Your task to perform on an android device: turn on improve location accuracy Image 0: 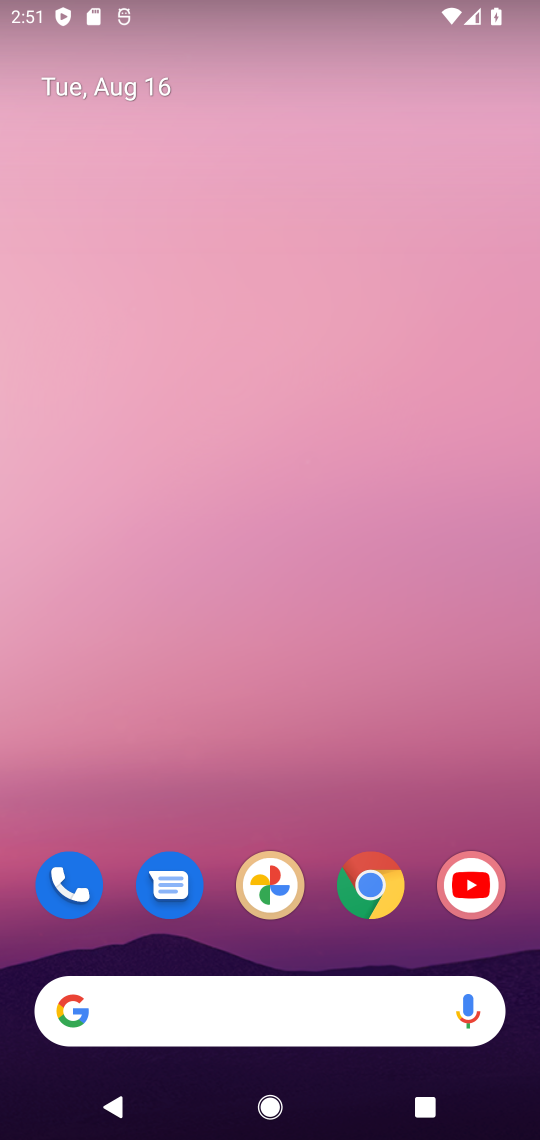
Step 0: drag from (419, 702) to (440, 333)
Your task to perform on an android device: turn on improve location accuracy Image 1: 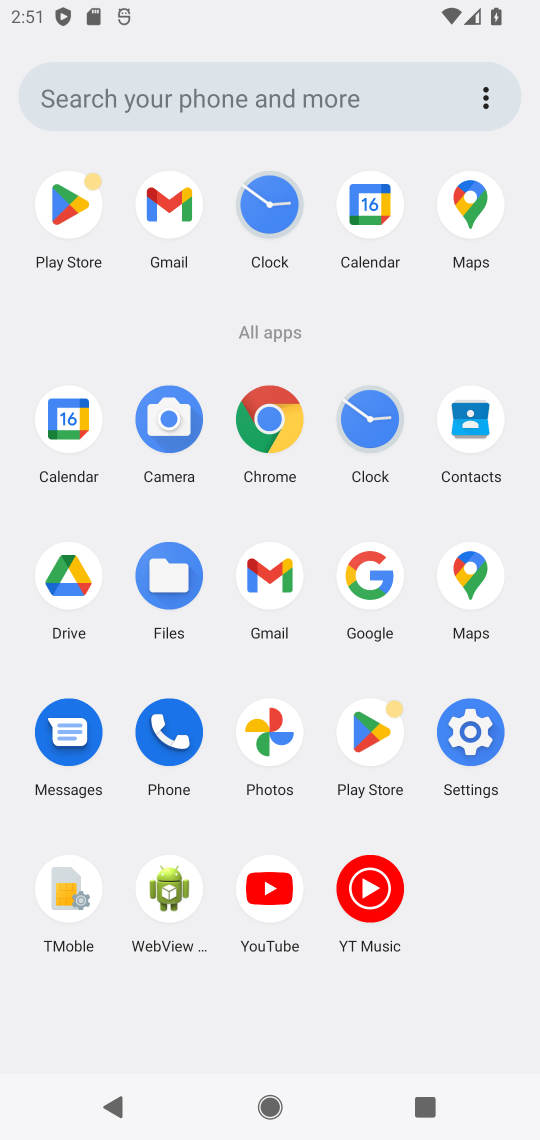
Step 1: click (463, 723)
Your task to perform on an android device: turn on improve location accuracy Image 2: 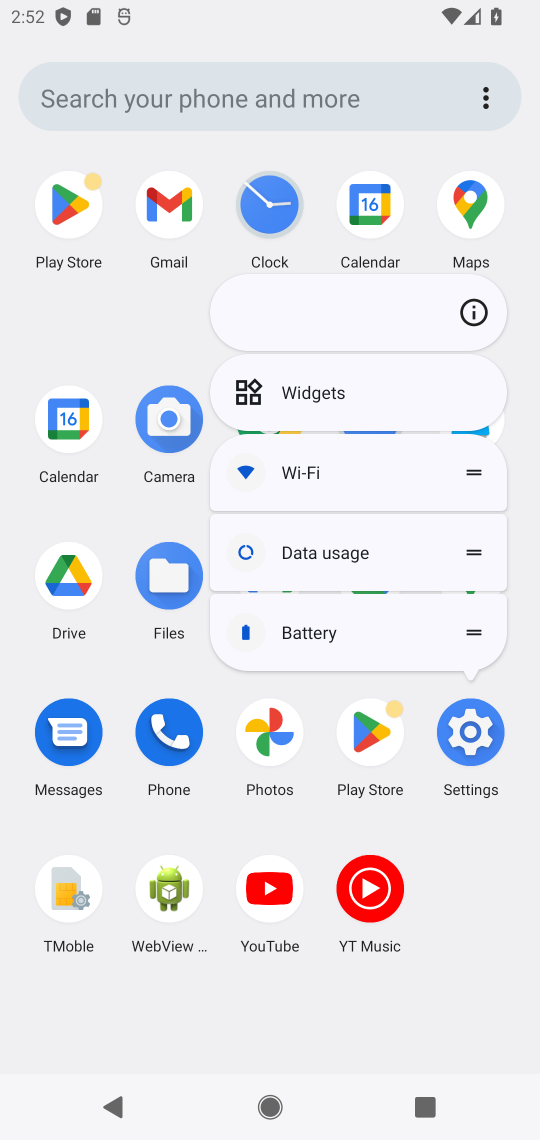
Step 2: click (463, 729)
Your task to perform on an android device: turn on improve location accuracy Image 3: 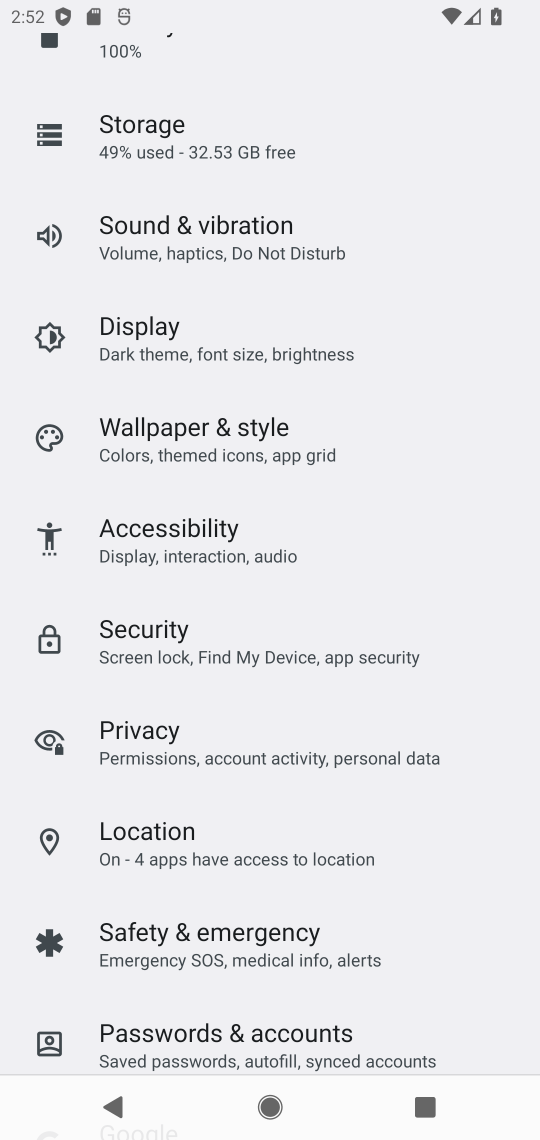
Step 3: click (157, 855)
Your task to perform on an android device: turn on improve location accuracy Image 4: 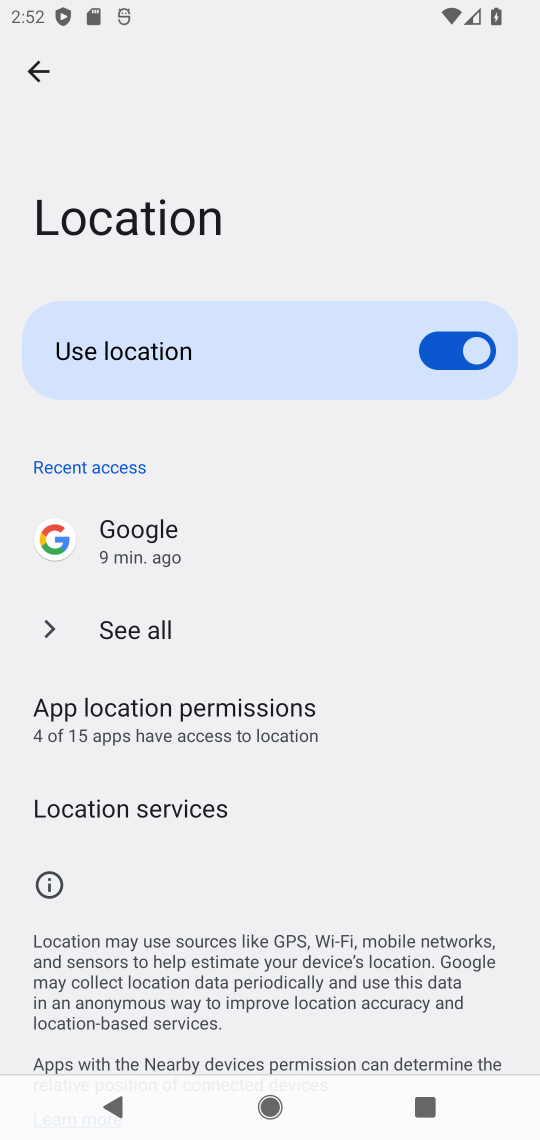
Step 4: drag from (305, 998) to (345, 569)
Your task to perform on an android device: turn on improve location accuracy Image 5: 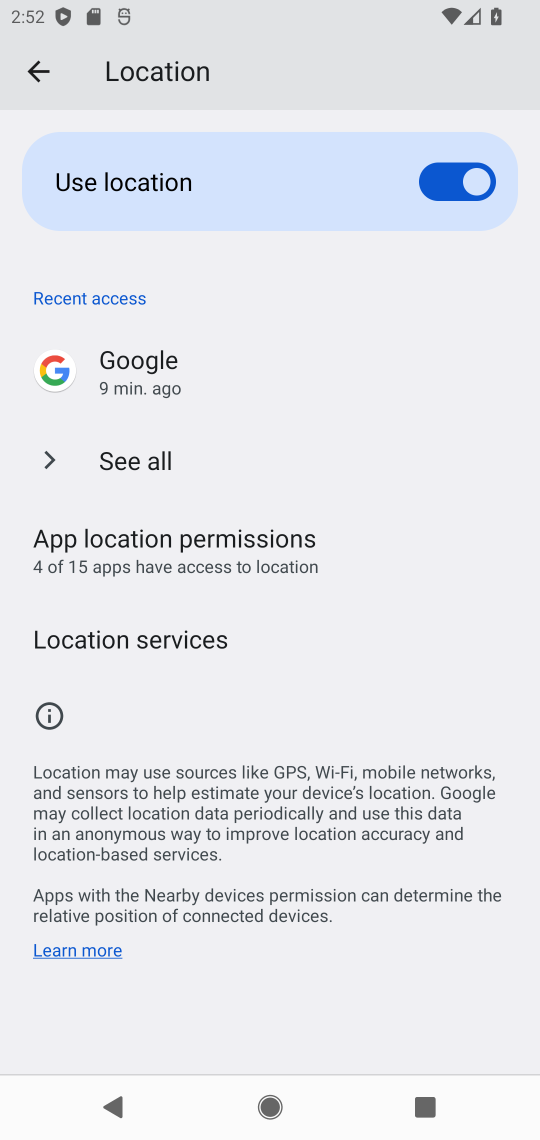
Step 5: click (146, 626)
Your task to perform on an android device: turn on improve location accuracy Image 6: 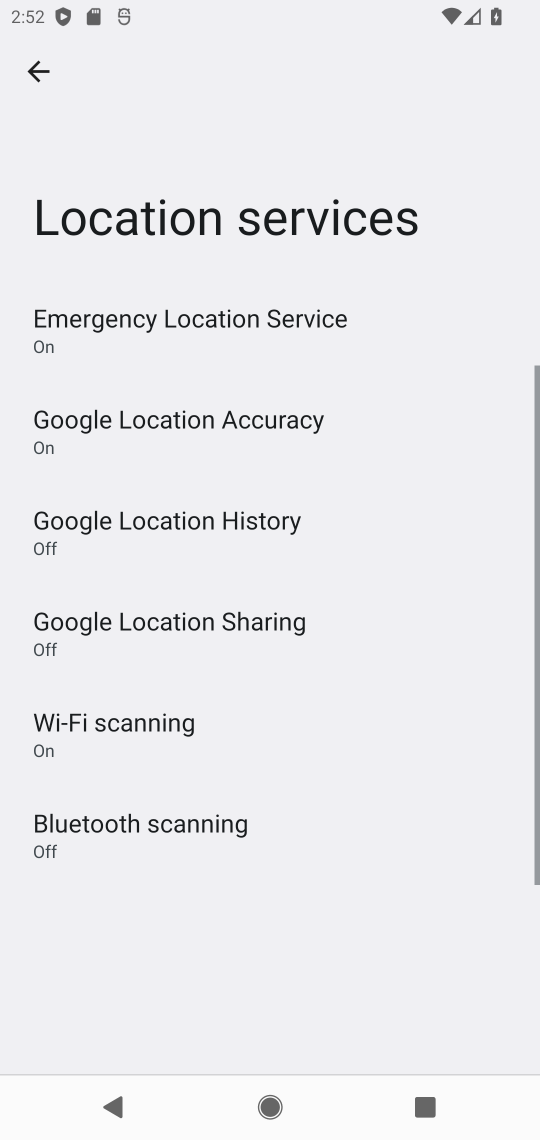
Step 6: click (261, 434)
Your task to perform on an android device: turn on improve location accuracy Image 7: 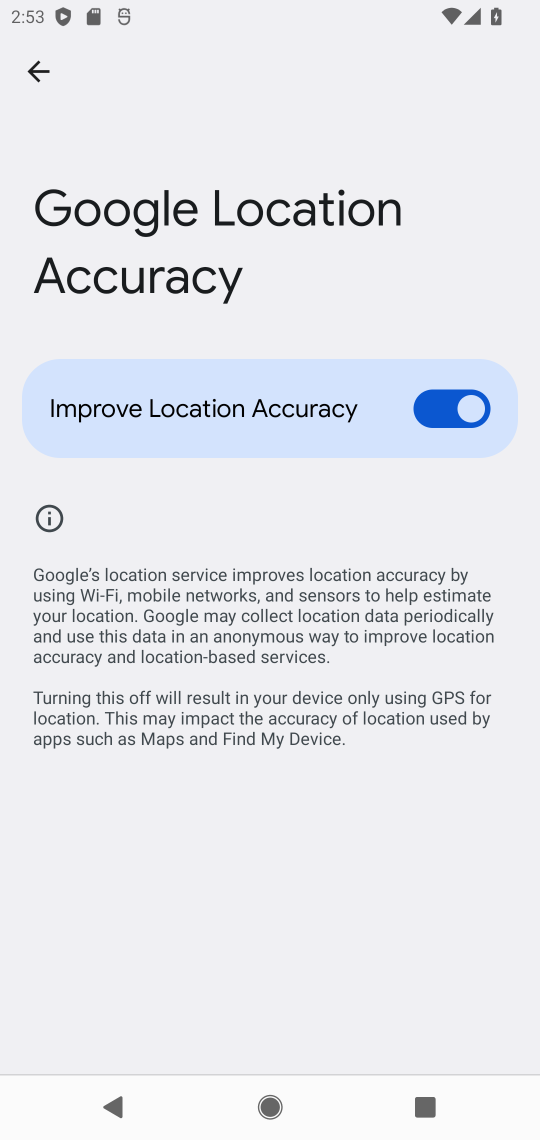
Step 7: task complete